Your task to perform on an android device: Open Google Maps and go to "Timeline" Image 0: 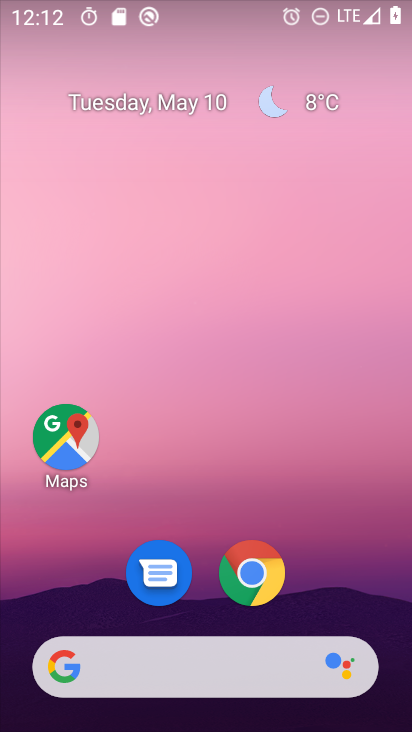
Step 0: drag from (350, 555) to (359, 149)
Your task to perform on an android device: Open Google Maps and go to "Timeline" Image 1: 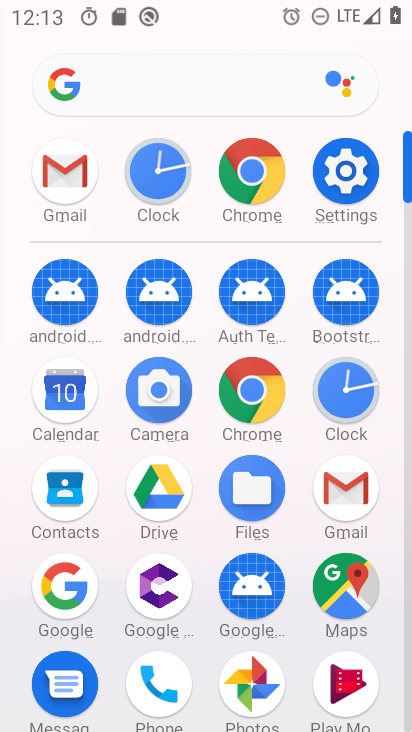
Step 1: click (362, 586)
Your task to perform on an android device: Open Google Maps and go to "Timeline" Image 2: 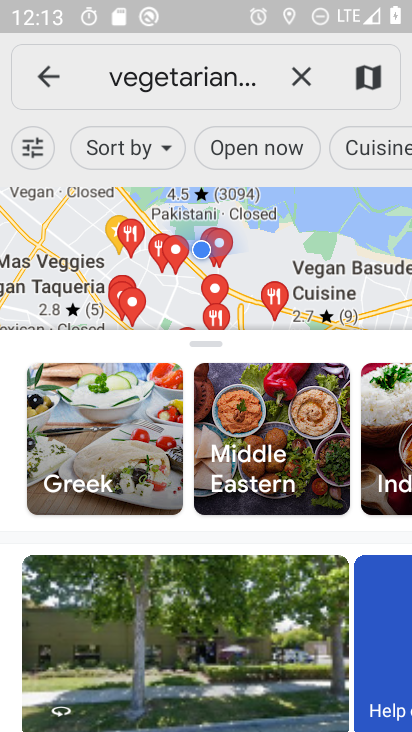
Step 2: click (48, 72)
Your task to perform on an android device: Open Google Maps and go to "Timeline" Image 3: 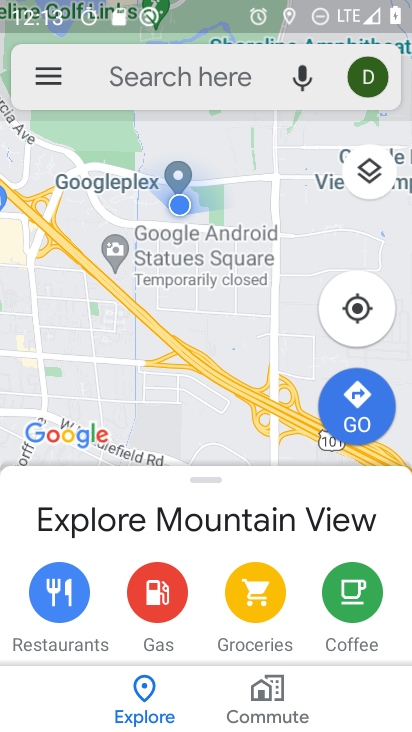
Step 3: click (51, 66)
Your task to perform on an android device: Open Google Maps and go to "Timeline" Image 4: 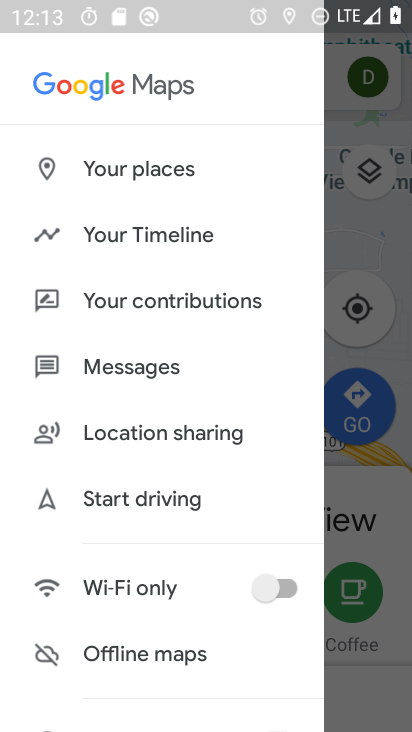
Step 4: click (166, 231)
Your task to perform on an android device: Open Google Maps and go to "Timeline" Image 5: 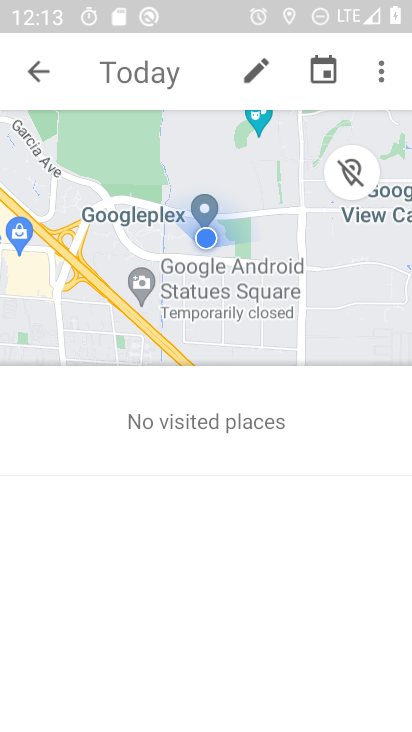
Step 5: task complete